Your task to perform on an android device: Go to network settings Image 0: 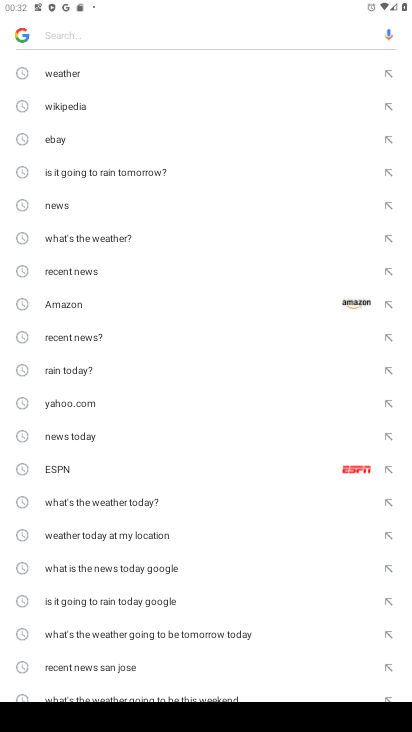
Step 0: press home button
Your task to perform on an android device: Go to network settings Image 1: 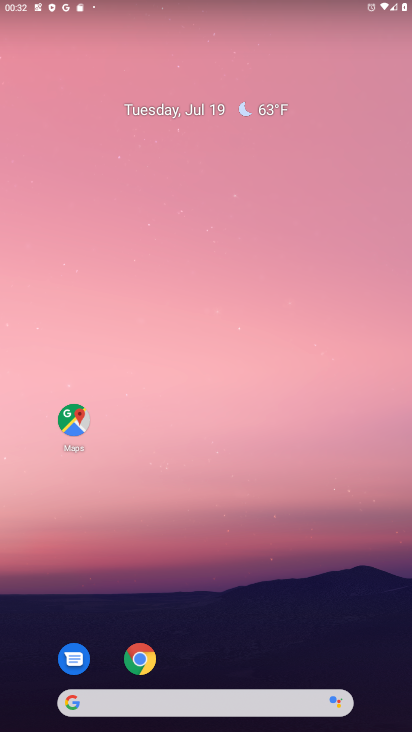
Step 1: drag from (250, 695) to (329, 188)
Your task to perform on an android device: Go to network settings Image 2: 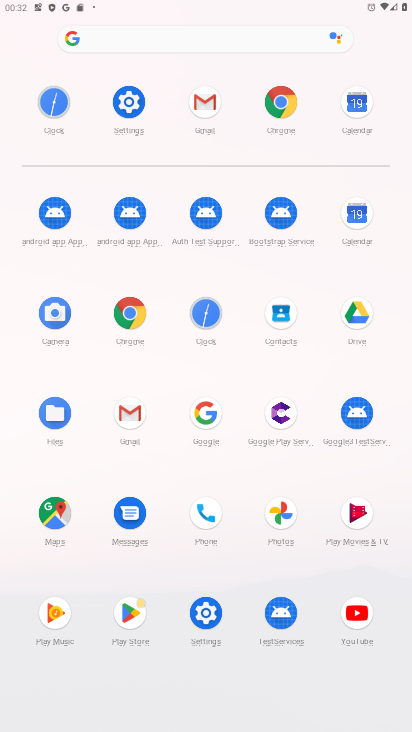
Step 2: click (125, 119)
Your task to perform on an android device: Go to network settings Image 3: 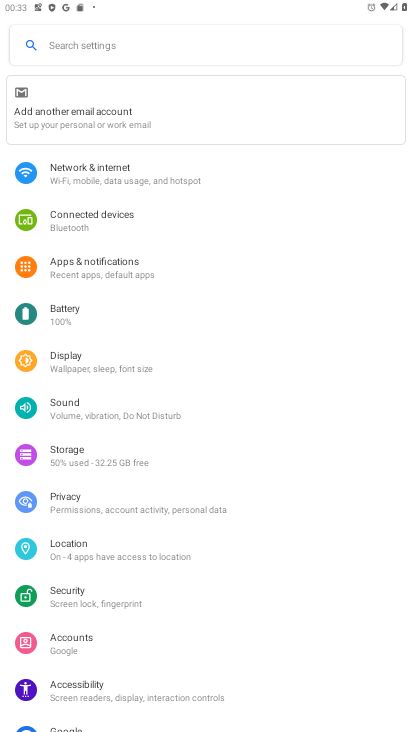
Step 3: click (122, 180)
Your task to perform on an android device: Go to network settings Image 4: 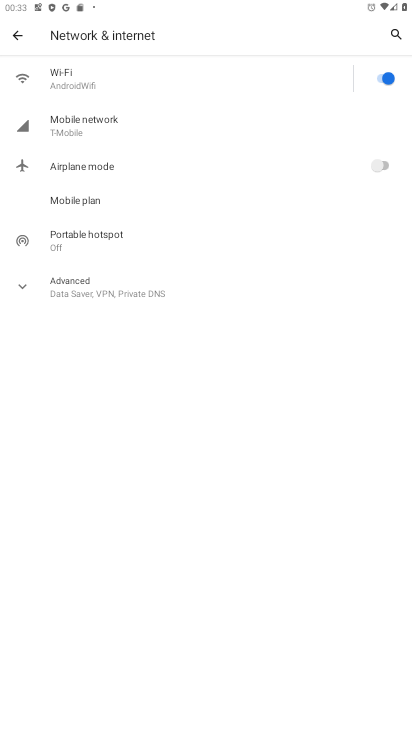
Step 4: task complete